Your task to perform on an android device: Search for logitech g pro on newegg.com, select the first entry, add it to the cart, then select checkout. Image 0: 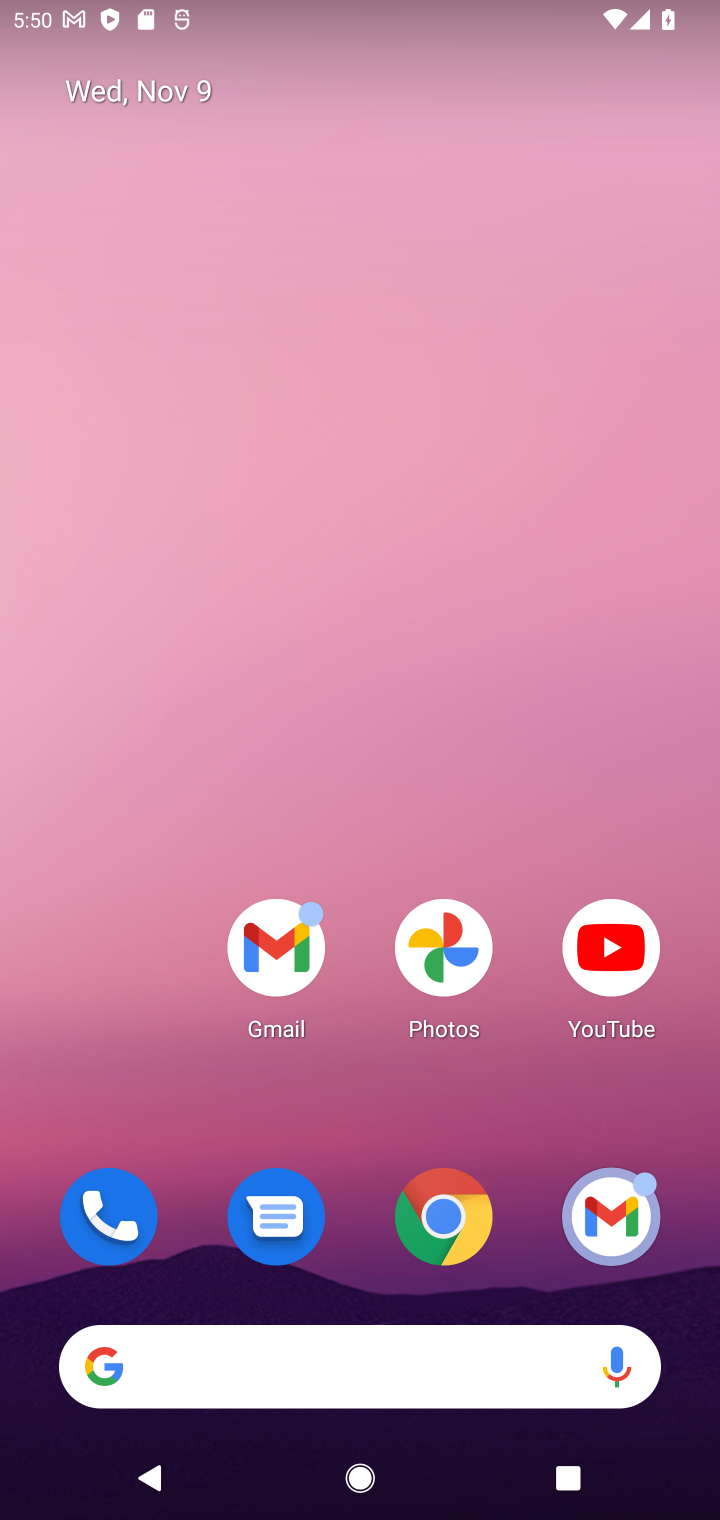
Step 0: drag from (367, 1063) to (311, 53)
Your task to perform on an android device: Search for logitech g pro on newegg.com, select the first entry, add it to the cart, then select checkout. Image 1: 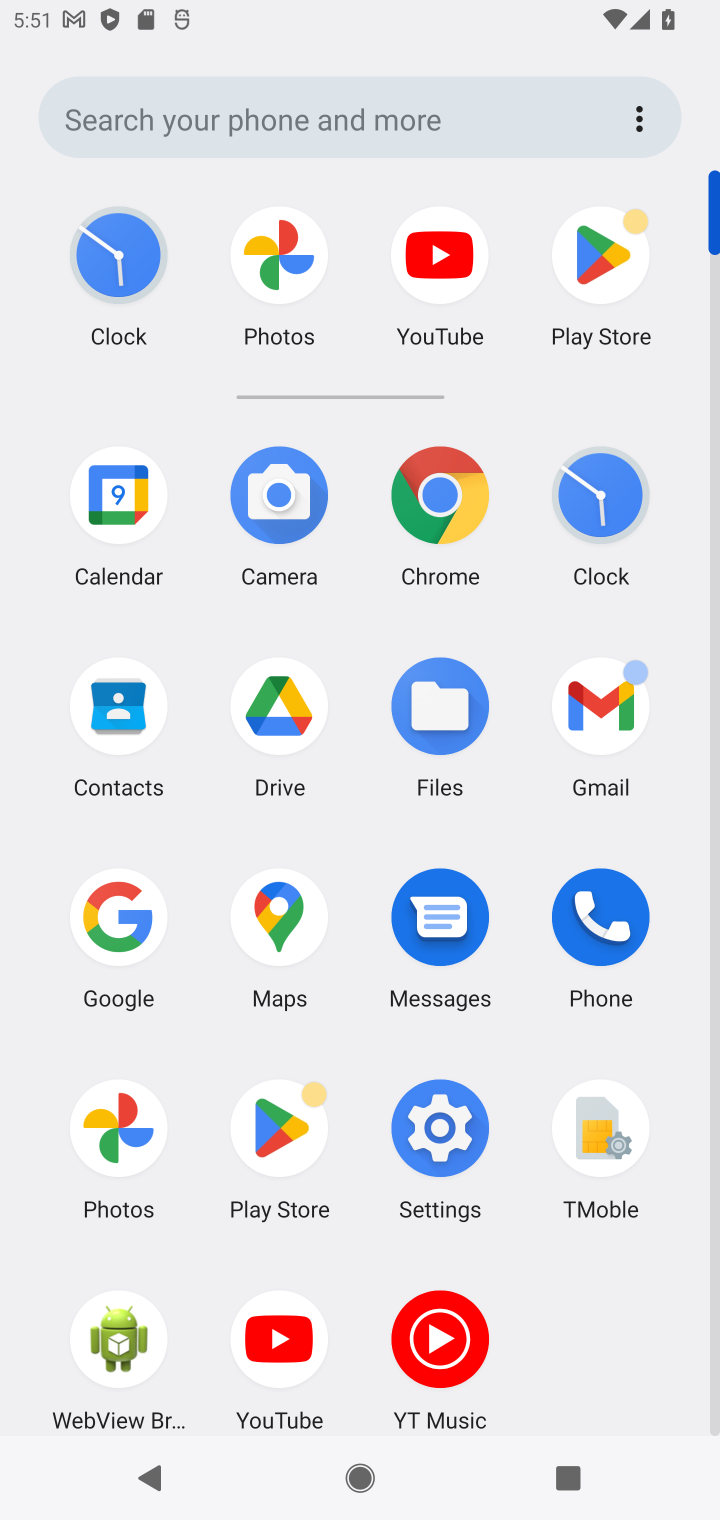
Step 1: click (444, 504)
Your task to perform on an android device: Search for logitech g pro on newegg.com, select the first entry, add it to the cart, then select checkout. Image 2: 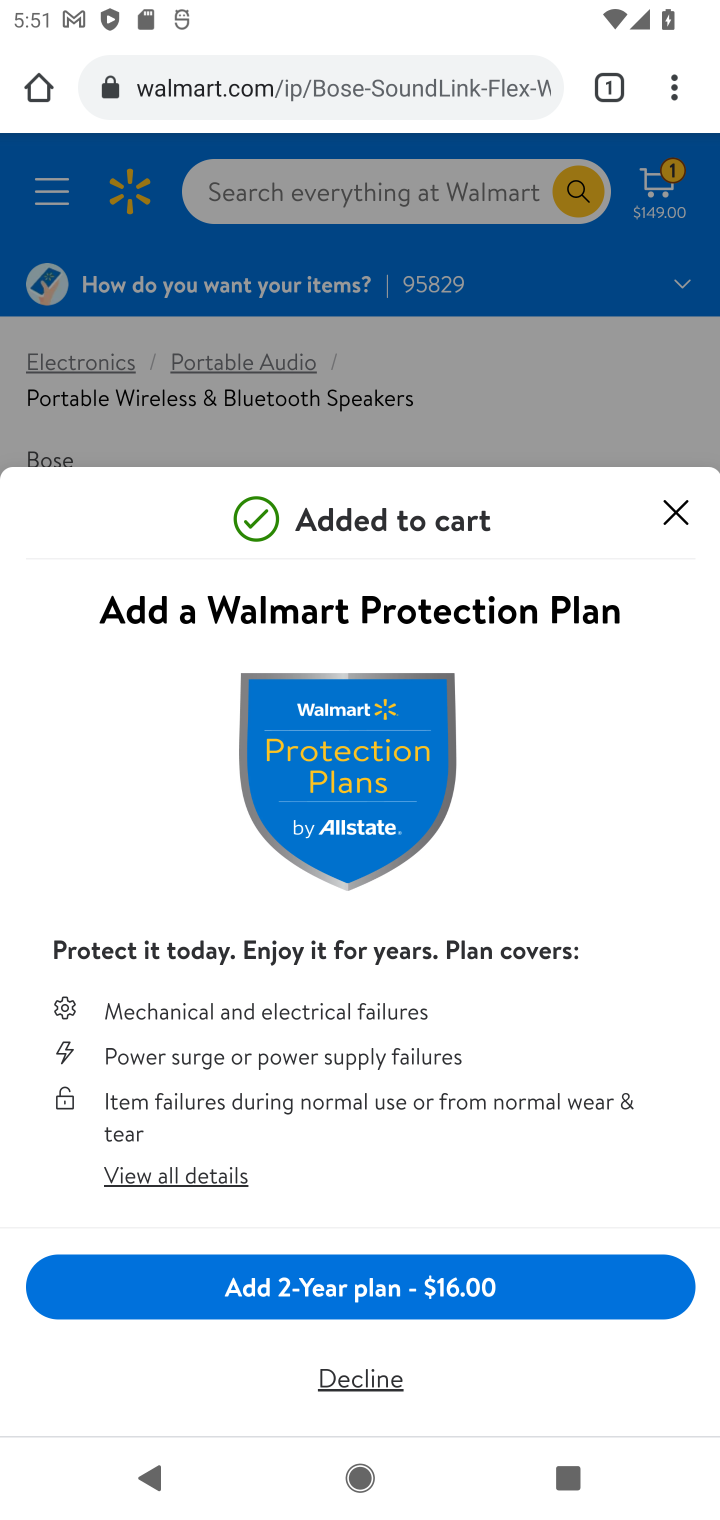
Step 2: click (465, 73)
Your task to perform on an android device: Search for logitech g pro on newegg.com, select the first entry, add it to the cart, then select checkout. Image 3: 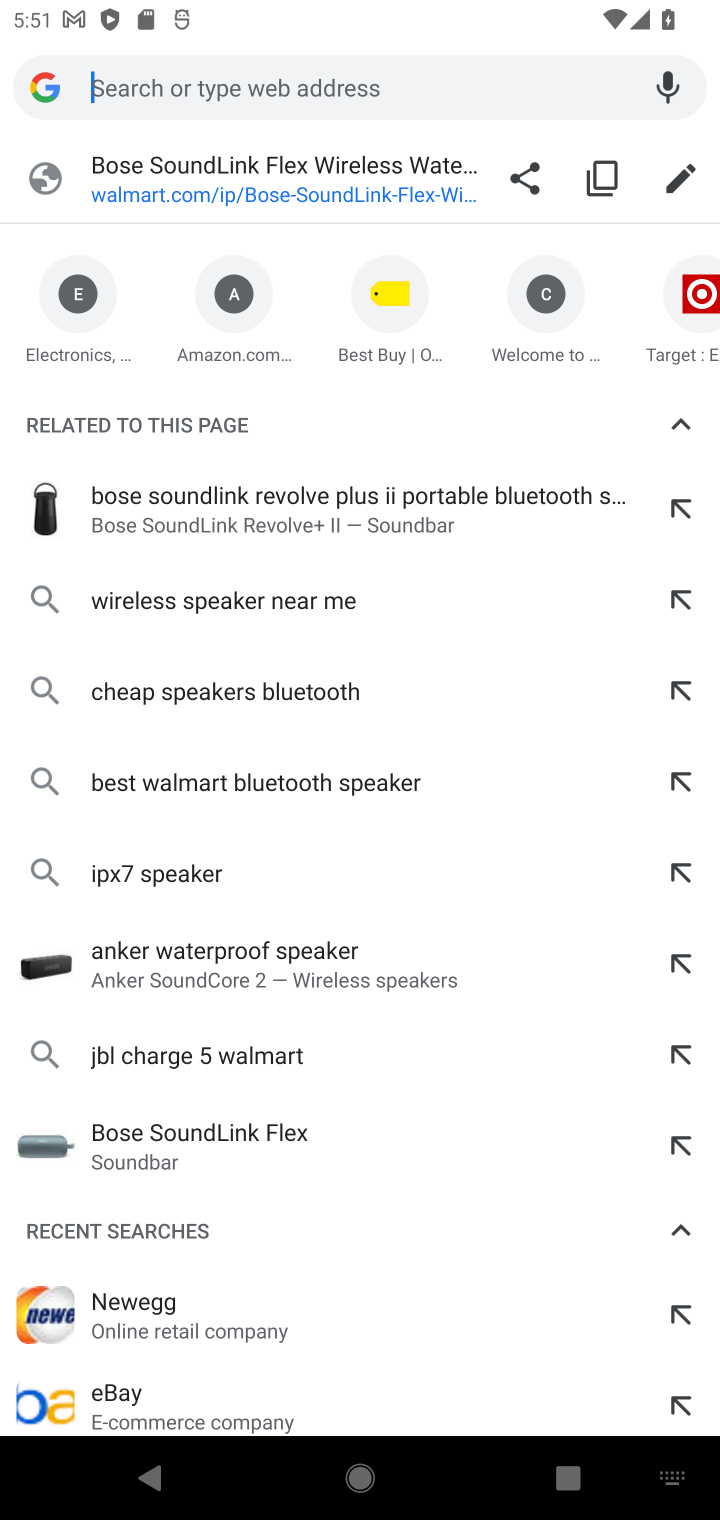
Step 3: type "newegg.com"
Your task to perform on an android device: Search for logitech g pro on newegg.com, select the first entry, add it to the cart, then select checkout. Image 4: 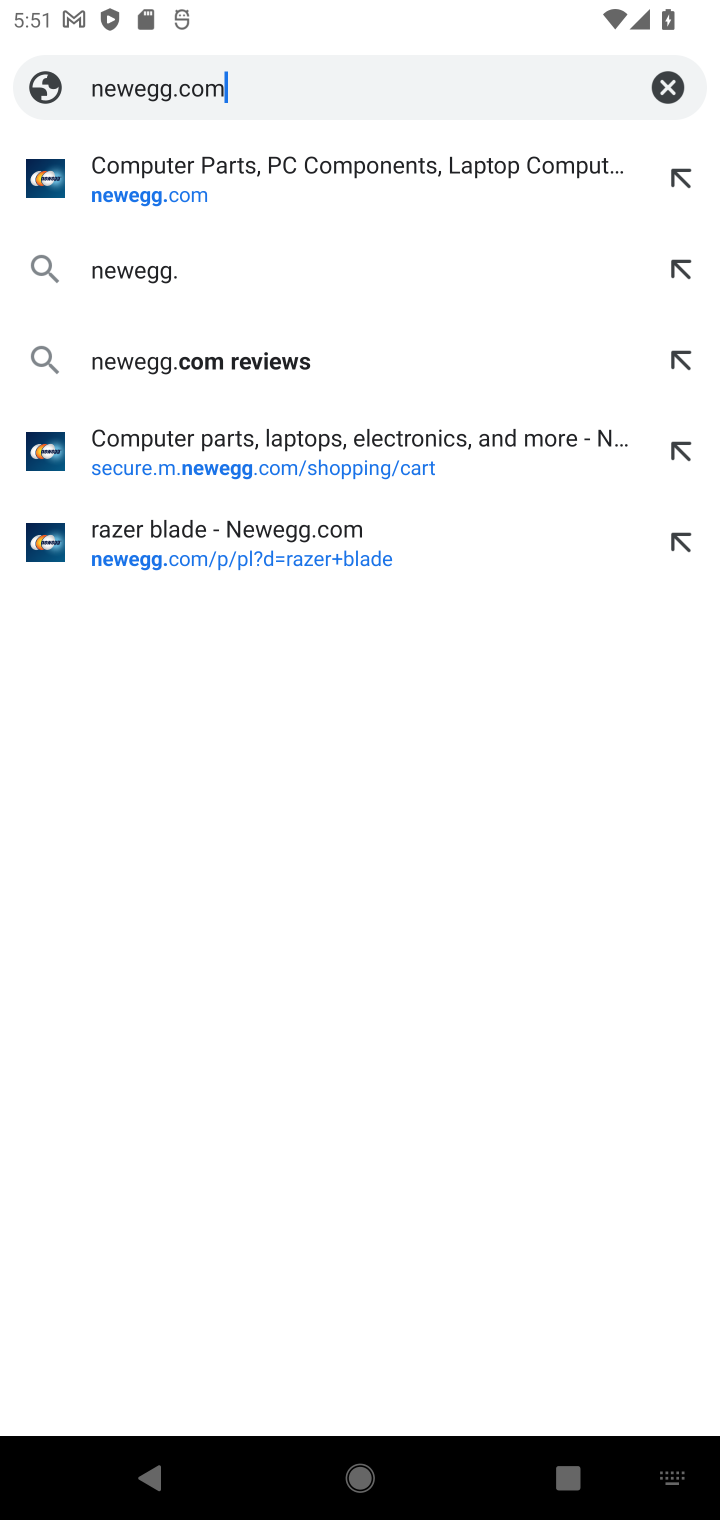
Step 4: press enter
Your task to perform on an android device: Search for logitech g pro on newegg.com, select the first entry, add it to the cart, then select checkout. Image 5: 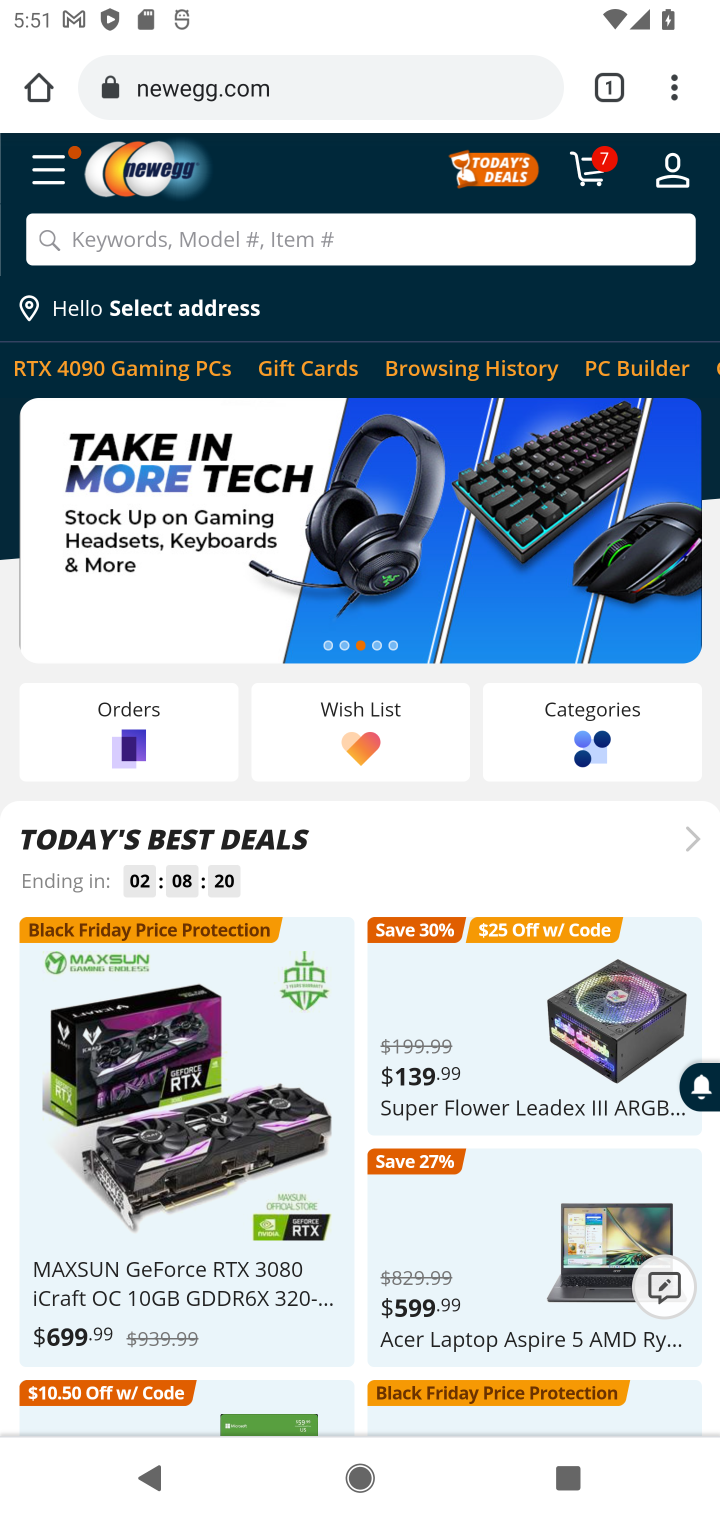
Step 5: click (235, 241)
Your task to perform on an android device: Search for logitech g pro on newegg.com, select the first entry, add it to the cart, then select checkout. Image 6: 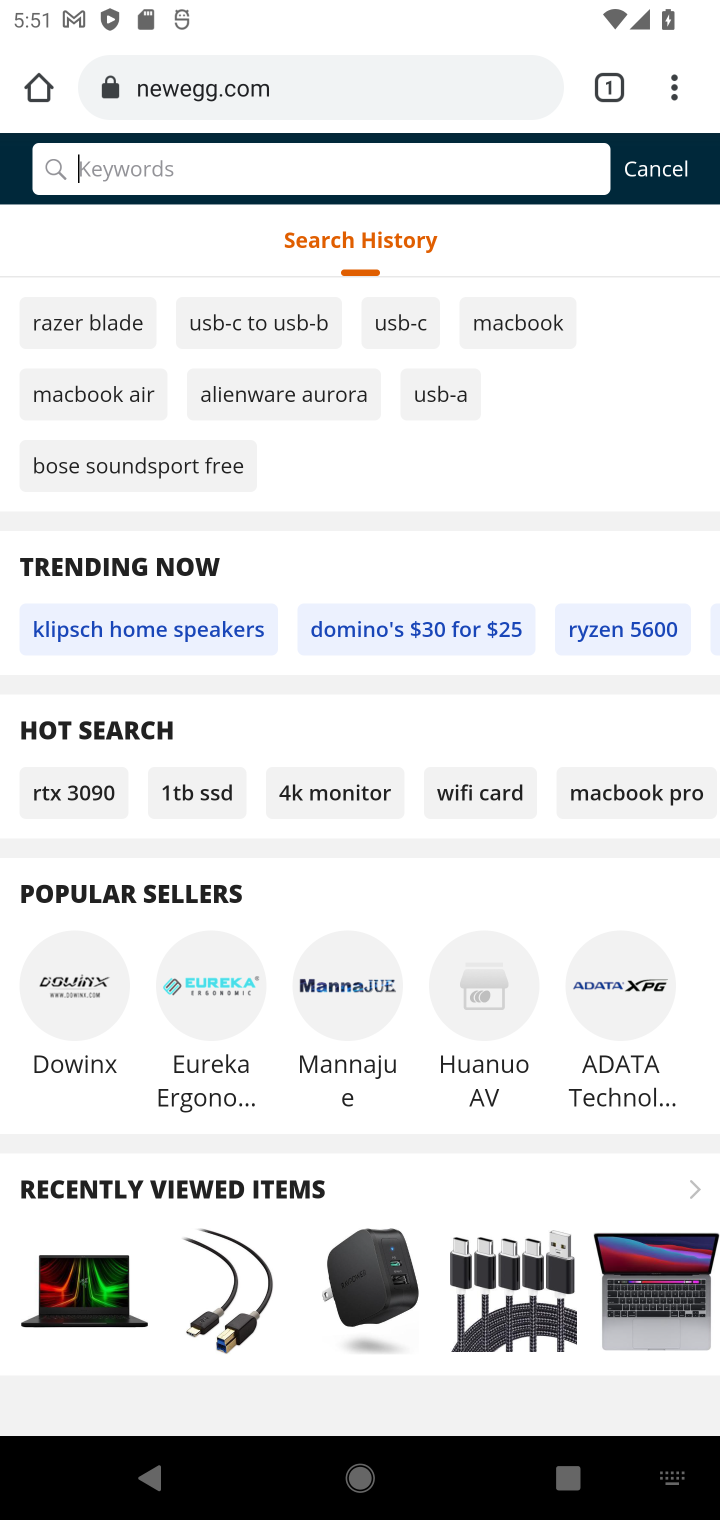
Step 6: type "logitech g pro"
Your task to perform on an android device: Search for logitech g pro on newegg.com, select the first entry, add it to the cart, then select checkout. Image 7: 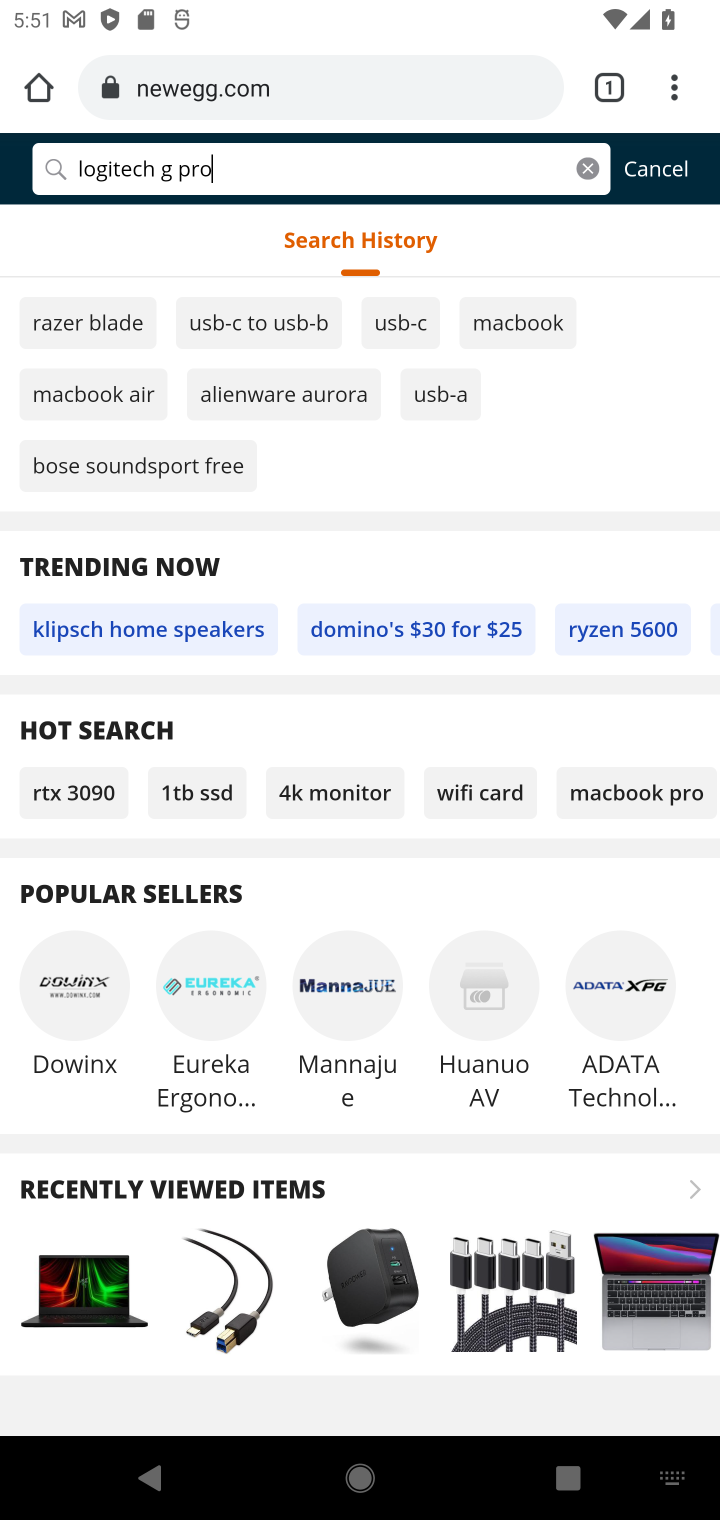
Step 7: press enter
Your task to perform on an android device: Search for logitech g pro on newegg.com, select the first entry, add it to the cart, then select checkout. Image 8: 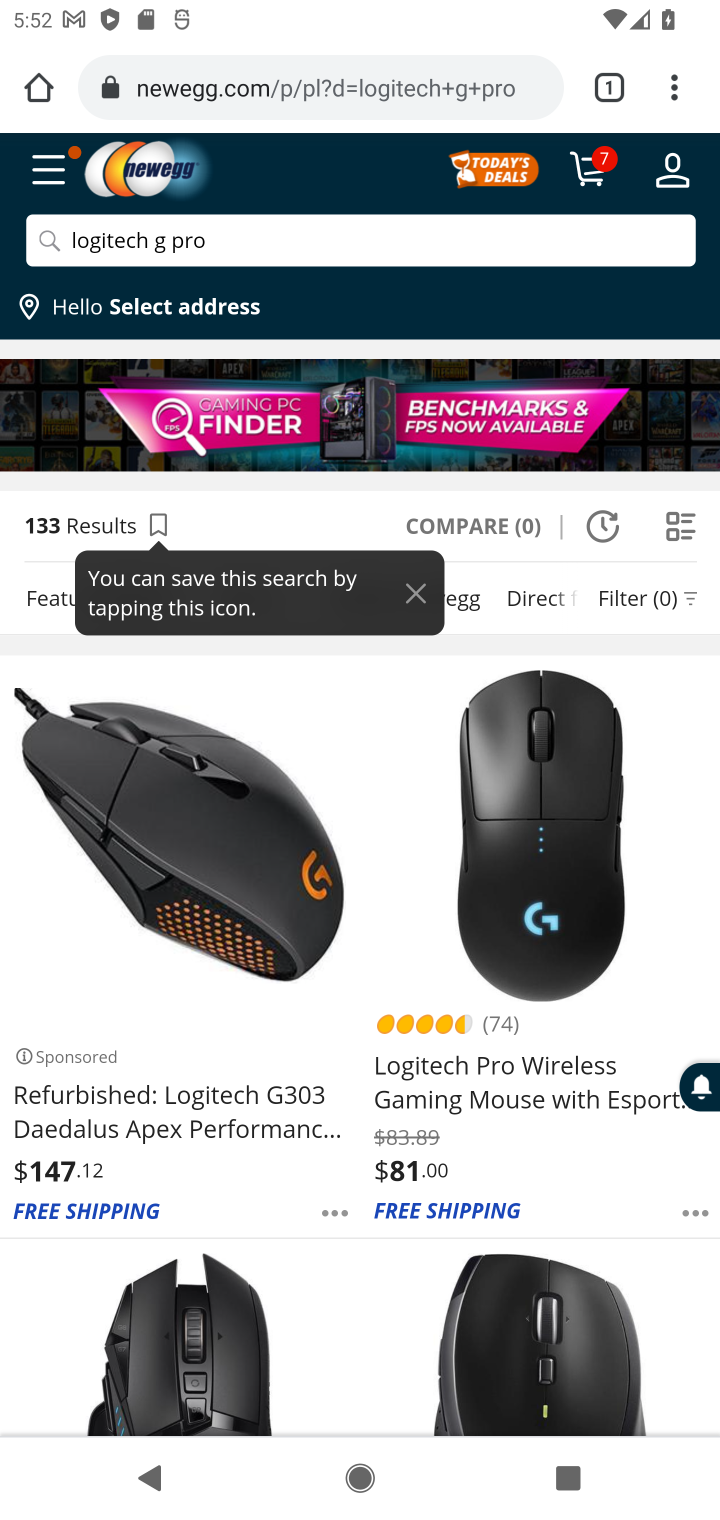
Step 8: drag from (325, 1183) to (241, 598)
Your task to perform on an android device: Search for logitech g pro on newegg.com, select the first entry, add it to the cart, then select checkout. Image 9: 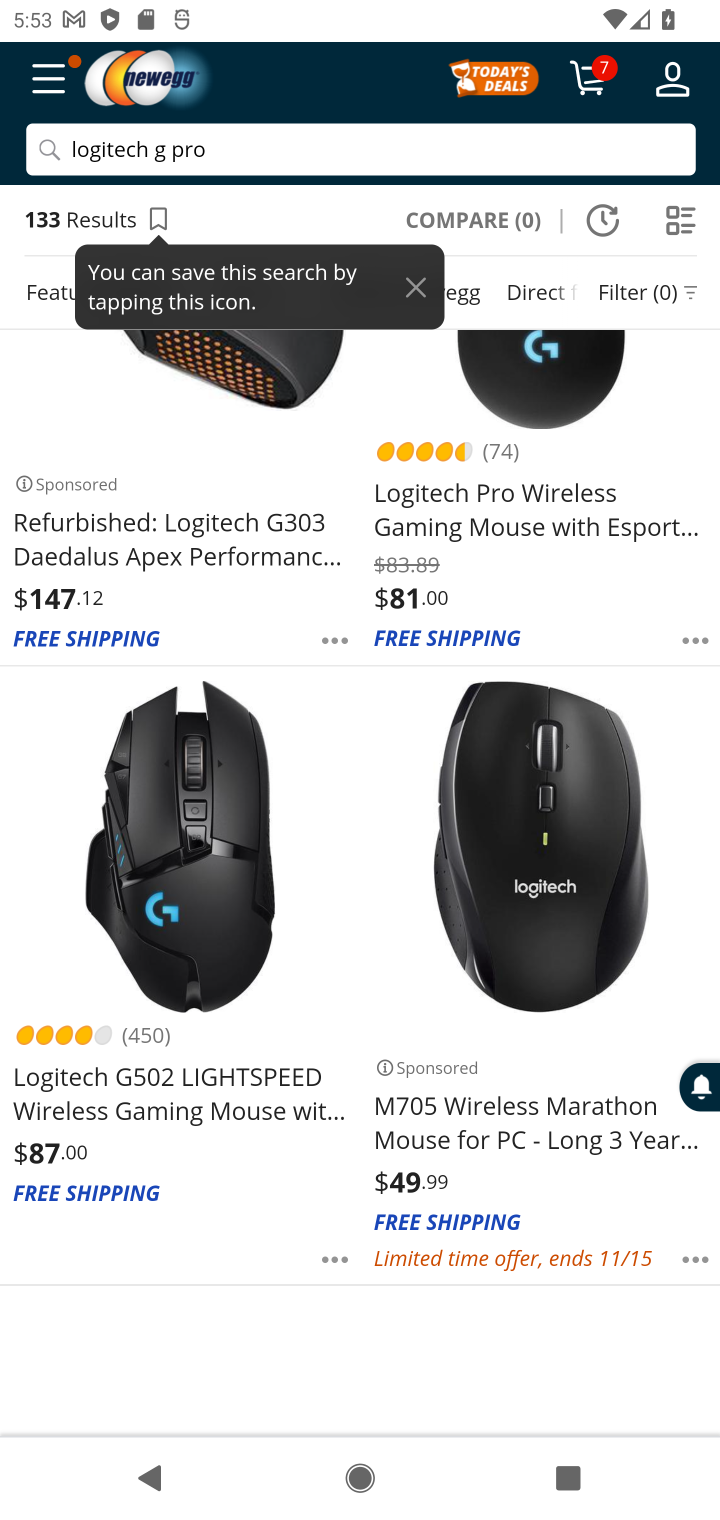
Step 9: drag from (260, 1316) to (283, 657)
Your task to perform on an android device: Search for logitech g pro on newegg.com, select the first entry, add it to the cart, then select checkout. Image 10: 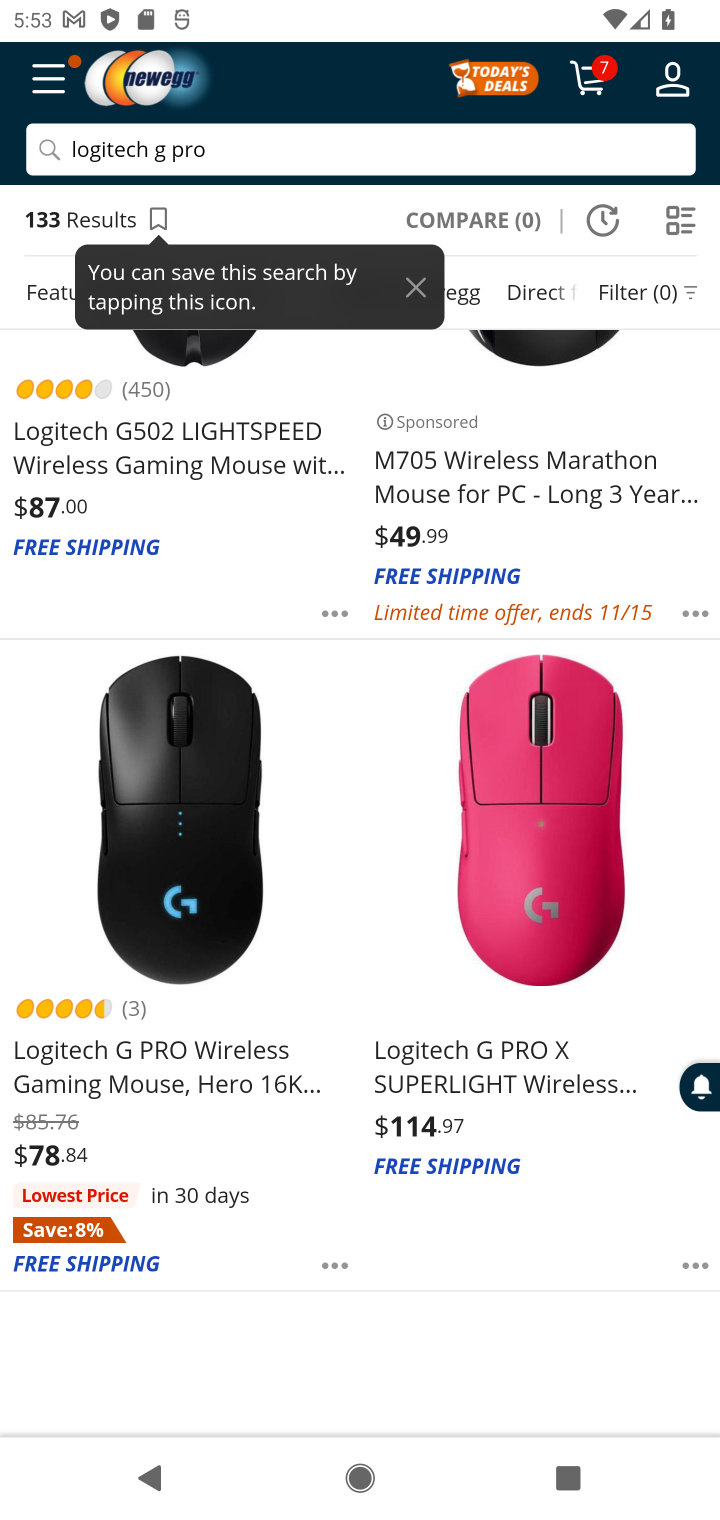
Step 10: click (152, 1093)
Your task to perform on an android device: Search for logitech g pro on newegg.com, select the first entry, add it to the cart, then select checkout. Image 11: 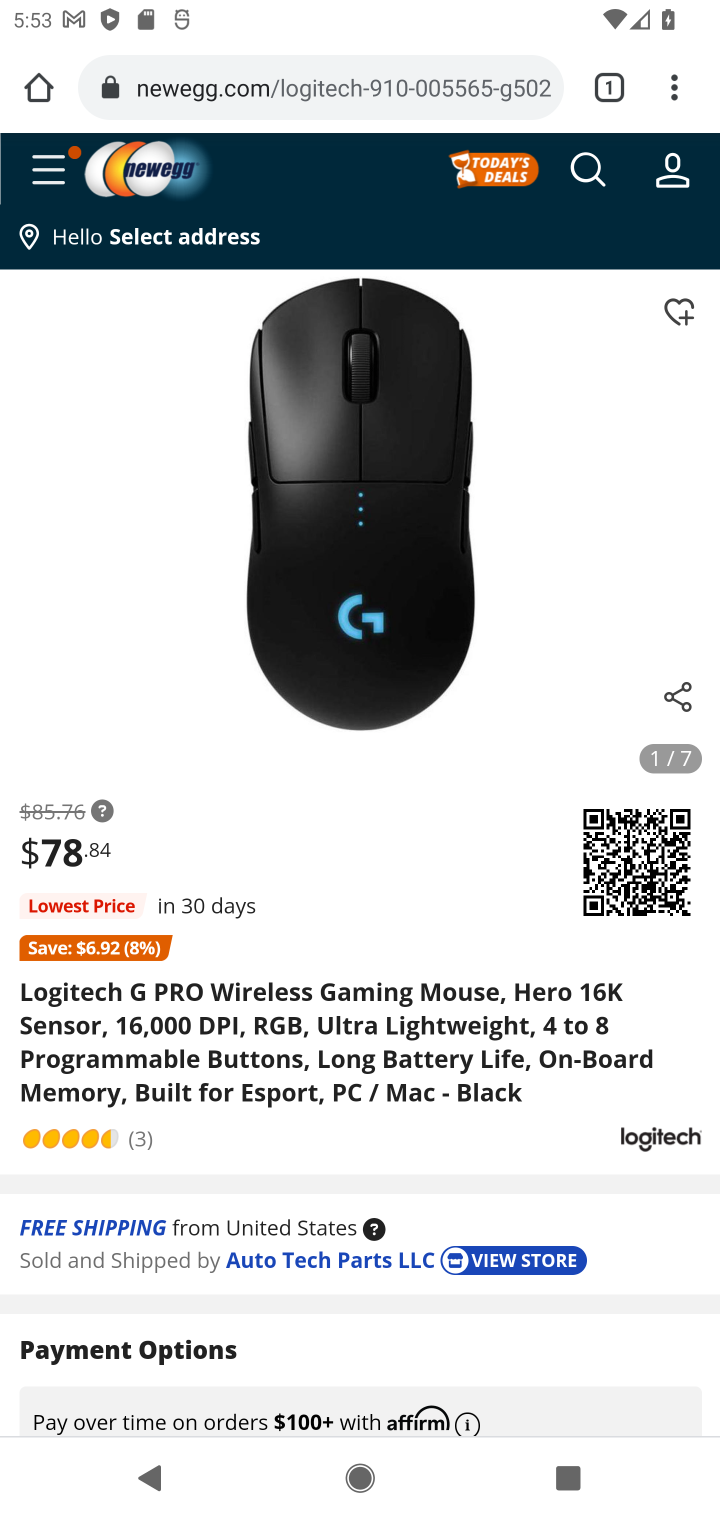
Step 11: drag from (371, 1212) to (380, 354)
Your task to perform on an android device: Search for logitech g pro on newegg.com, select the first entry, add it to the cart, then select checkout. Image 12: 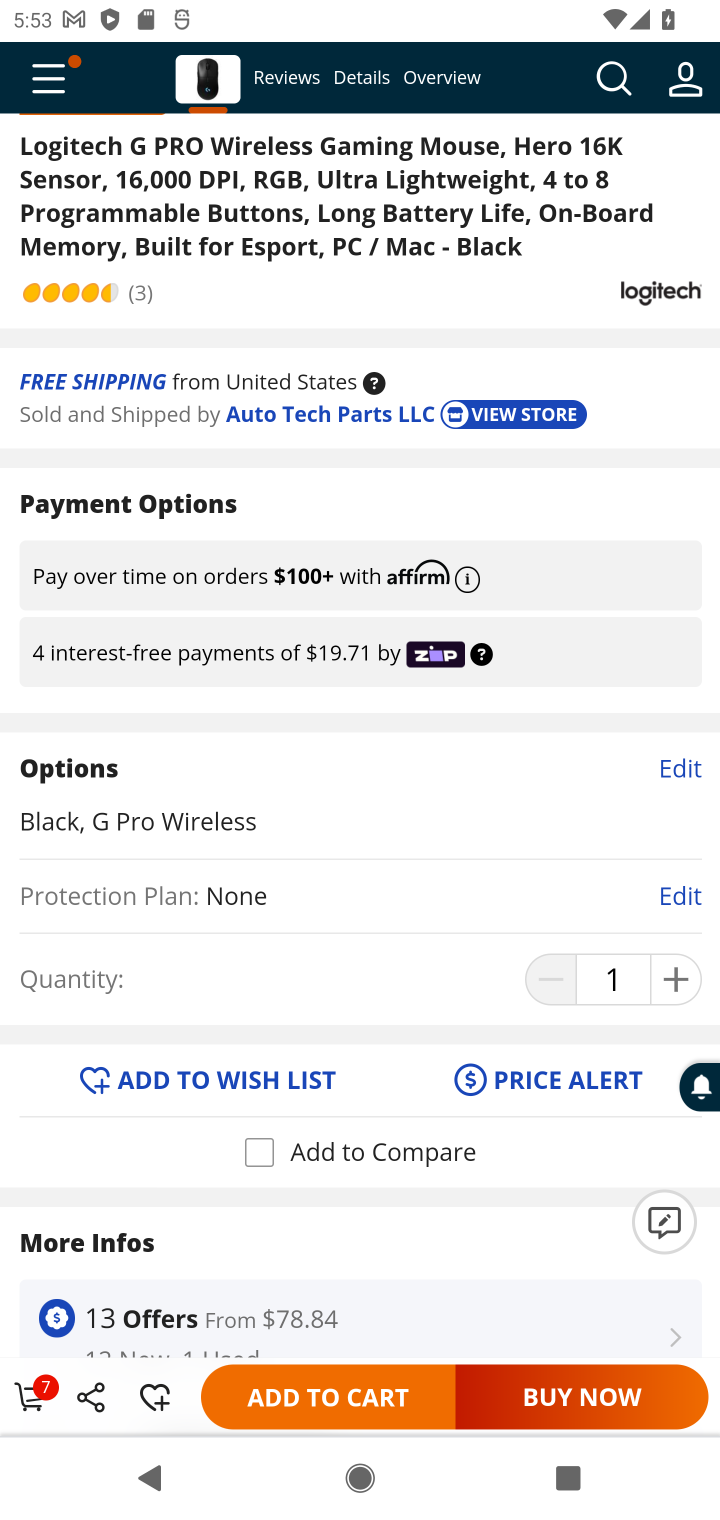
Step 12: click (373, 1393)
Your task to perform on an android device: Search for logitech g pro on newegg.com, select the first entry, add it to the cart, then select checkout. Image 13: 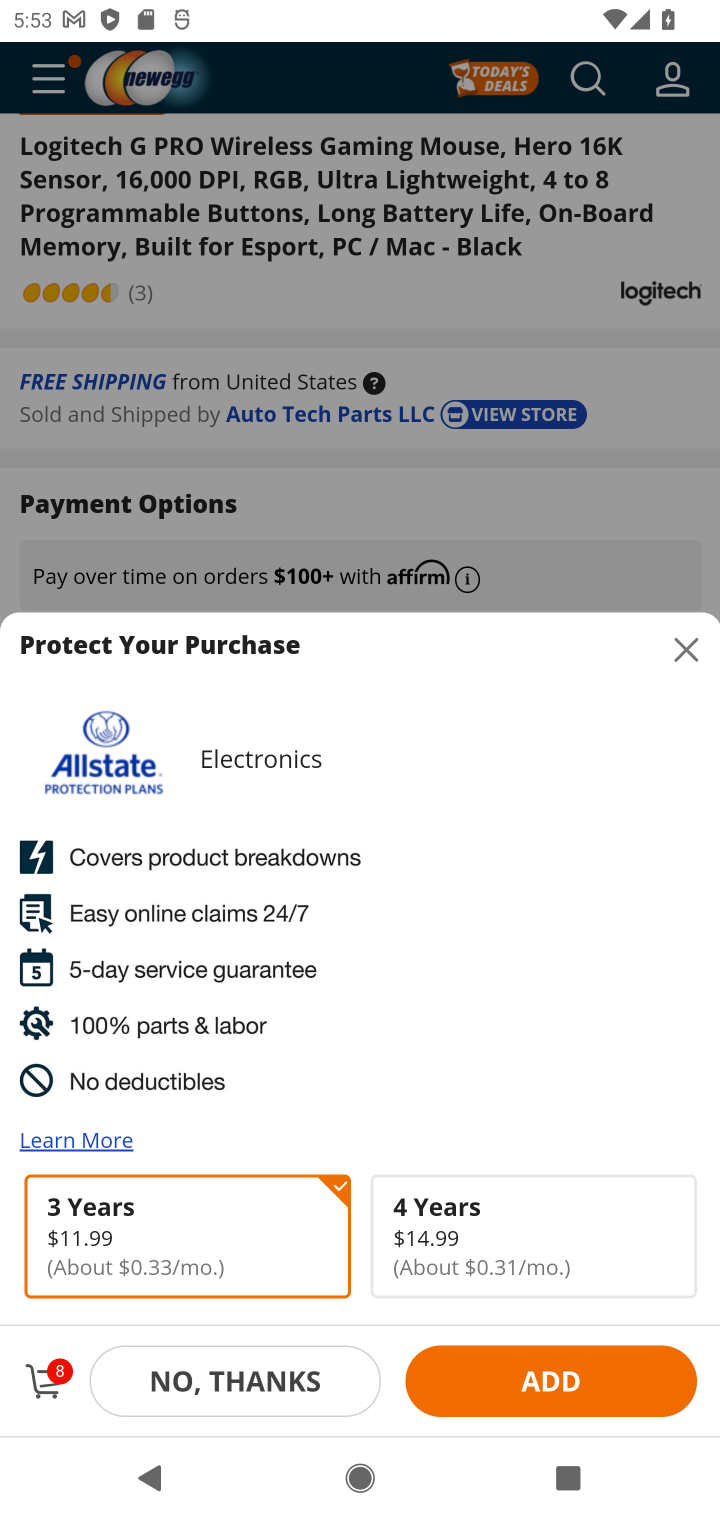
Step 13: click (51, 1372)
Your task to perform on an android device: Search for logitech g pro on newegg.com, select the first entry, add it to the cart, then select checkout. Image 14: 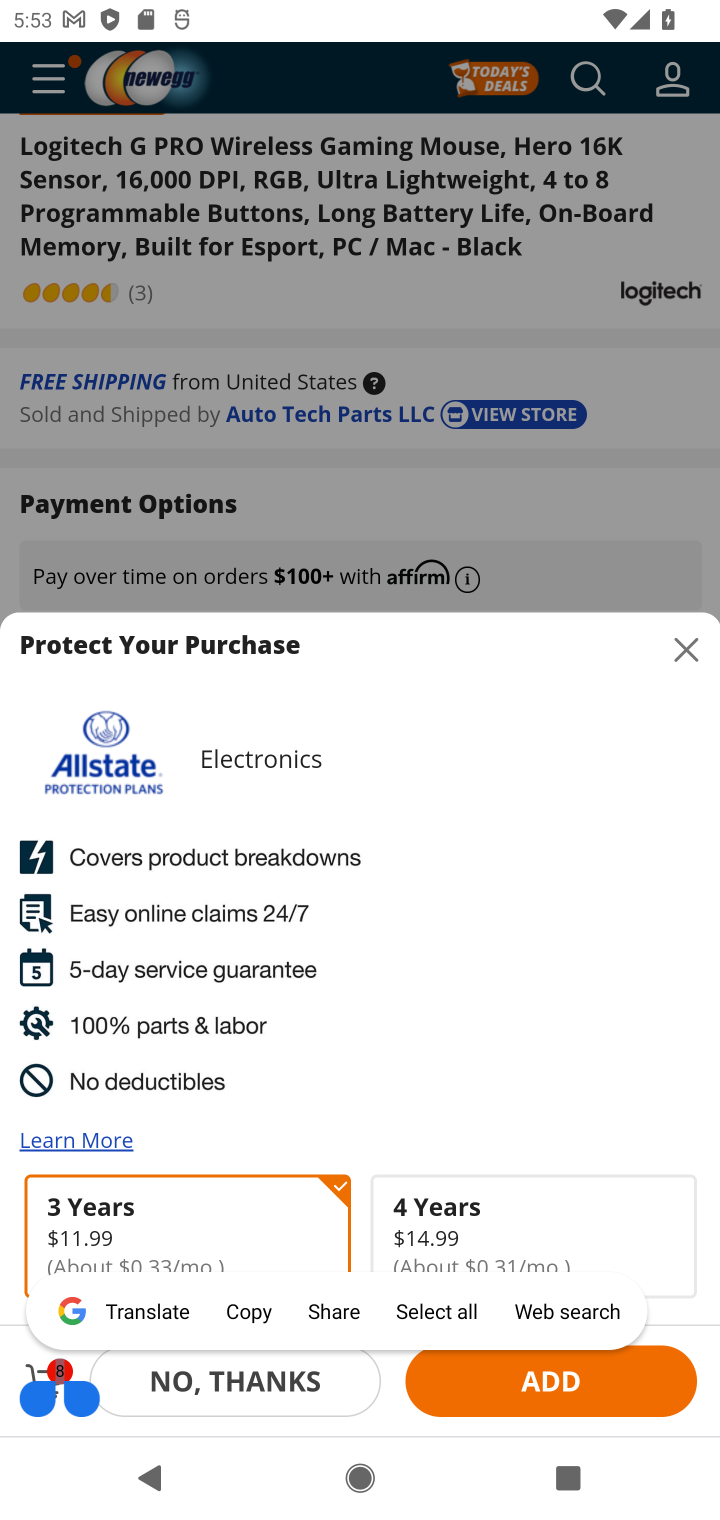
Step 14: click (48, 1380)
Your task to perform on an android device: Search for logitech g pro on newegg.com, select the first entry, add it to the cart, then select checkout. Image 15: 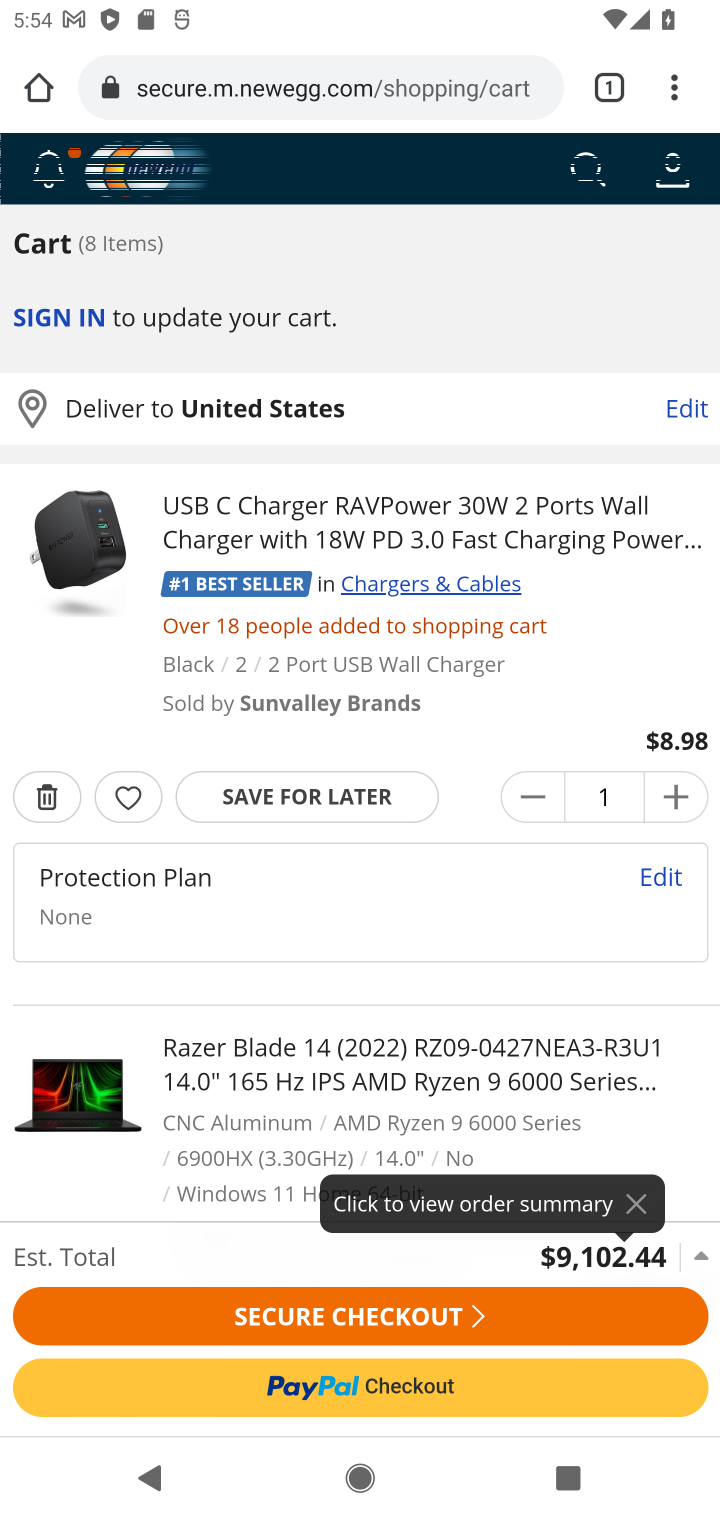
Step 15: click (396, 1304)
Your task to perform on an android device: Search for logitech g pro on newegg.com, select the first entry, add it to the cart, then select checkout. Image 16: 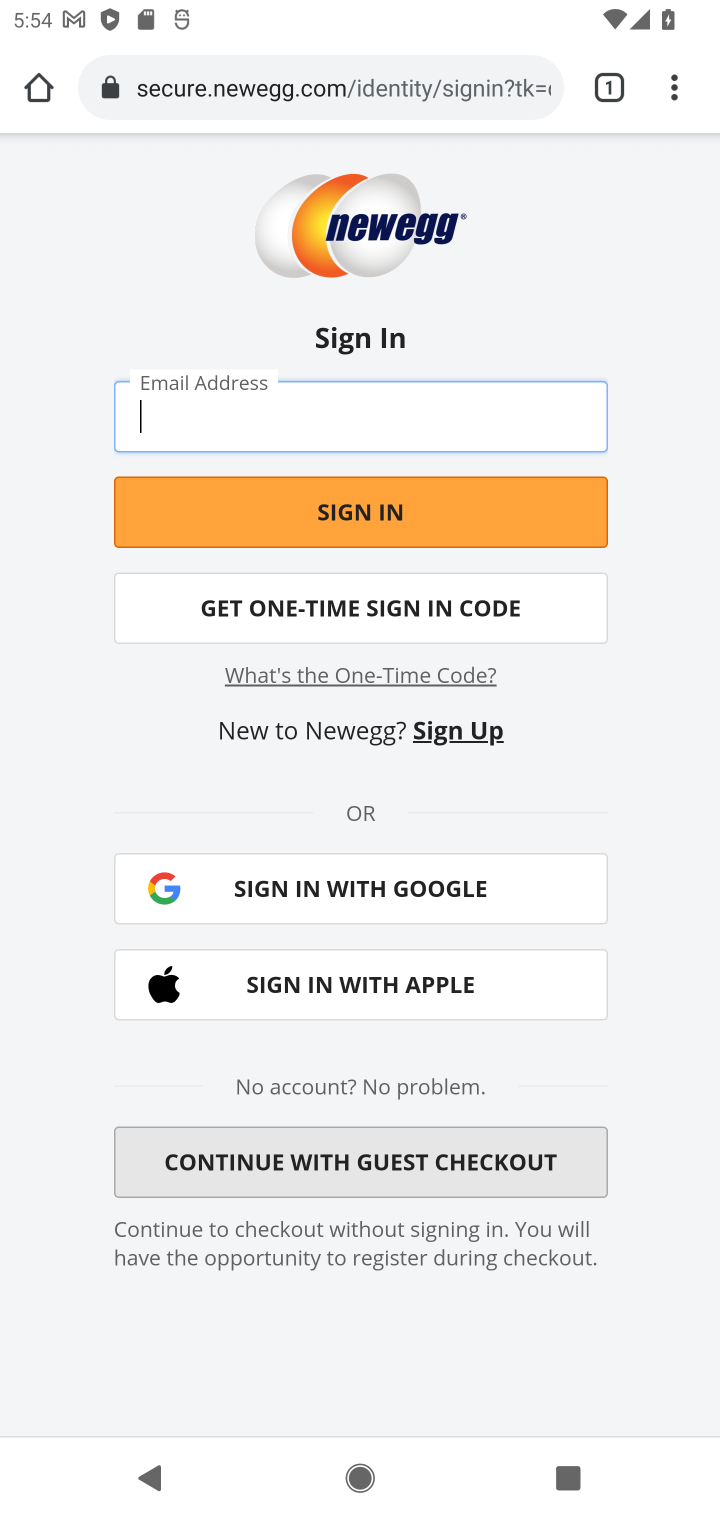
Step 16: task complete